Your task to perform on an android device: check the backup settings in the google photos Image 0: 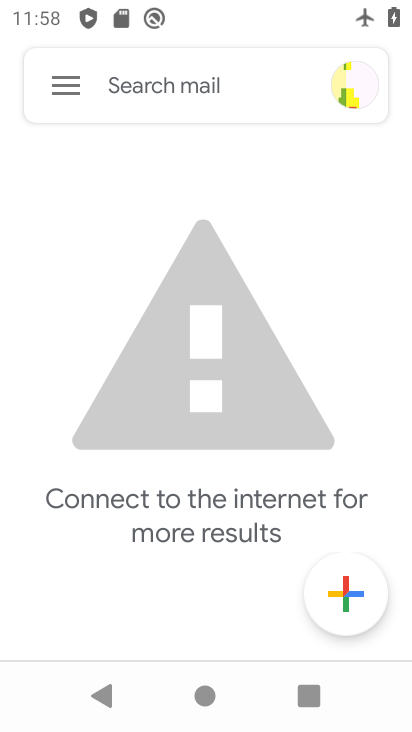
Step 0: press back button
Your task to perform on an android device: check the backup settings in the google photos Image 1: 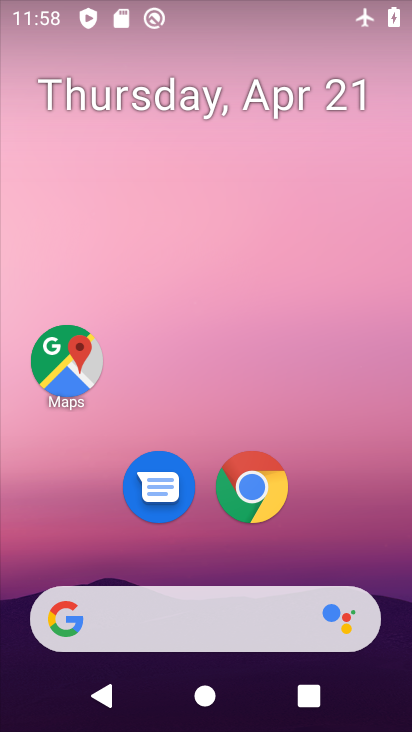
Step 1: drag from (175, 562) to (274, 5)
Your task to perform on an android device: check the backup settings in the google photos Image 2: 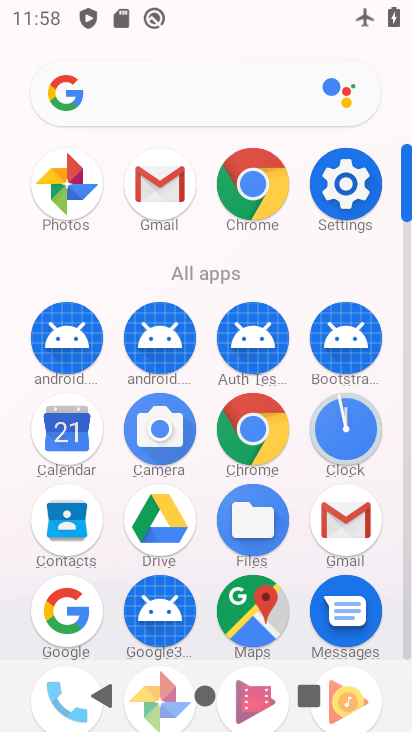
Step 2: drag from (157, 644) to (229, 308)
Your task to perform on an android device: check the backup settings in the google photos Image 3: 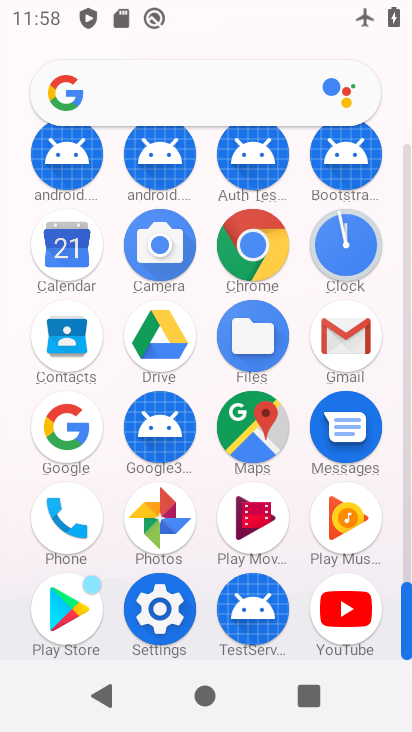
Step 3: click (160, 527)
Your task to perform on an android device: check the backup settings in the google photos Image 4: 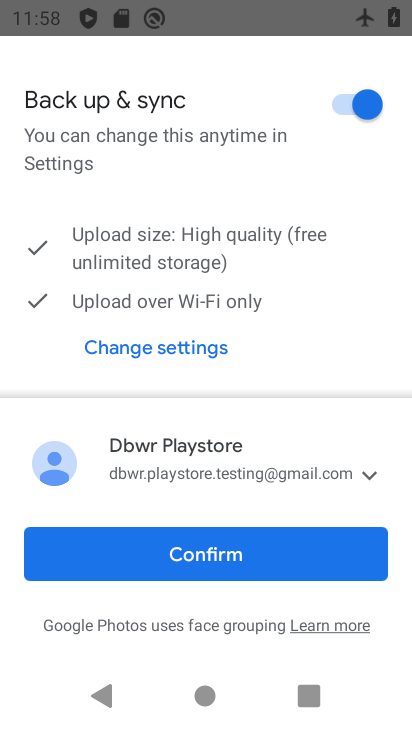
Step 4: click (208, 554)
Your task to perform on an android device: check the backup settings in the google photos Image 5: 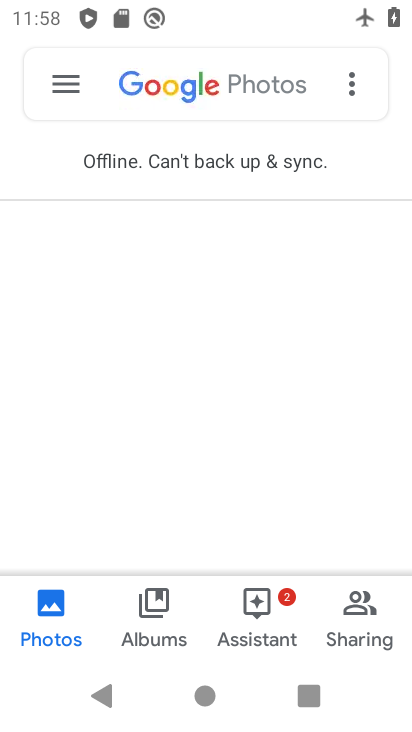
Step 5: click (81, 87)
Your task to perform on an android device: check the backup settings in the google photos Image 6: 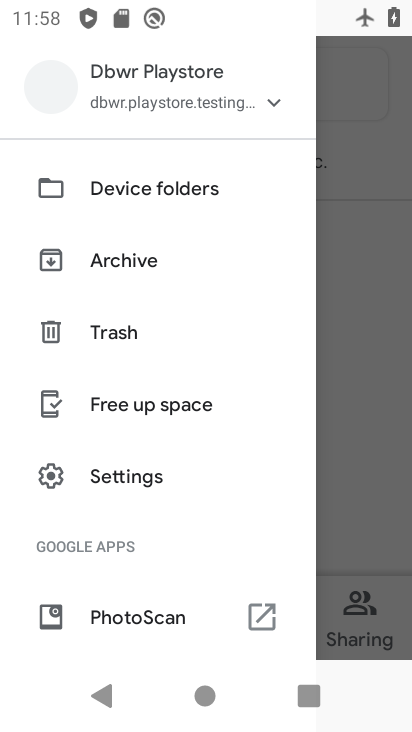
Step 6: click (161, 471)
Your task to perform on an android device: check the backup settings in the google photos Image 7: 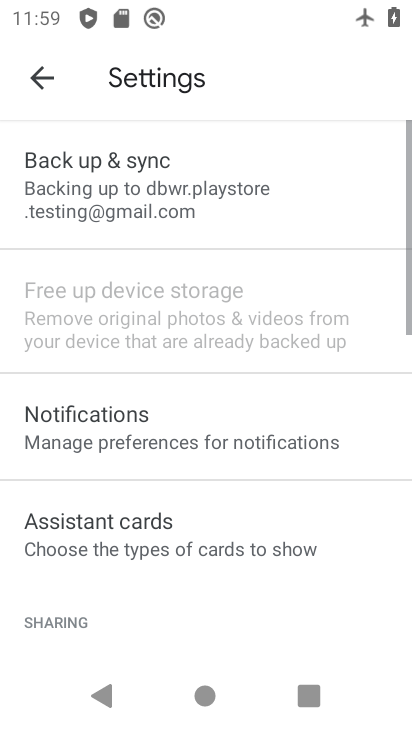
Step 7: click (193, 165)
Your task to perform on an android device: check the backup settings in the google photos Image 8: 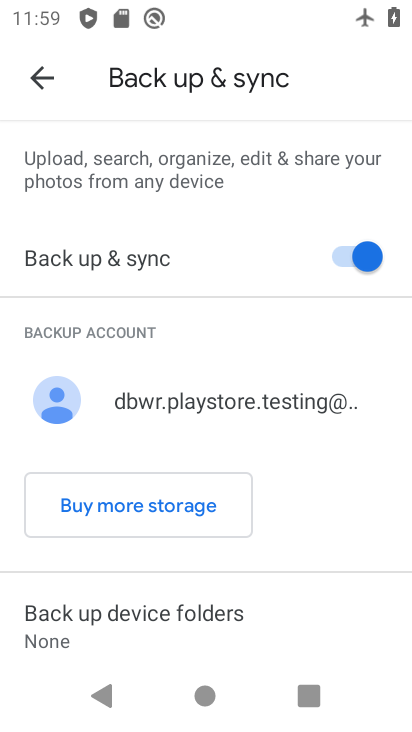
Step 8: task complete